Your task to perform on an android device: Open internet settings Image 0: 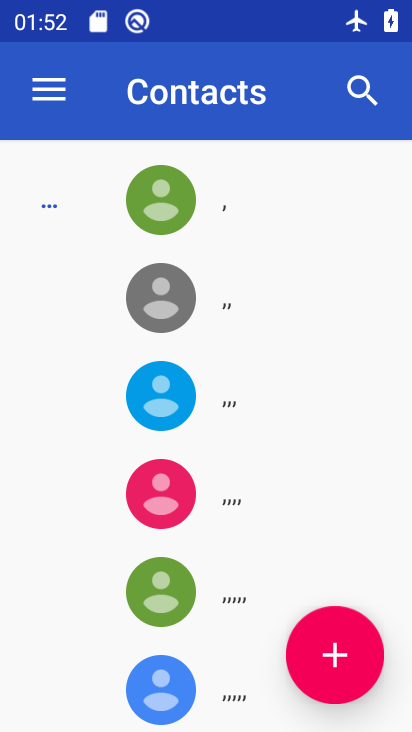
Step 0: press home button
Your task to perform on an android device: Open internet settings Image 1: 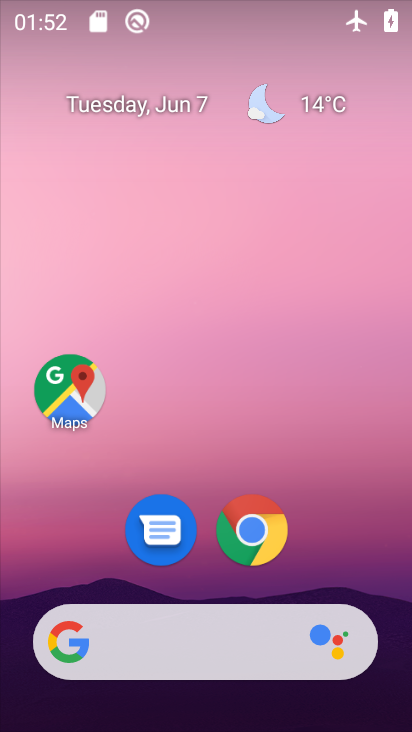
Step 1: drag from (337, 563) to (374, 167)
Your task to perform on an android device: Open internet settings Image 2: 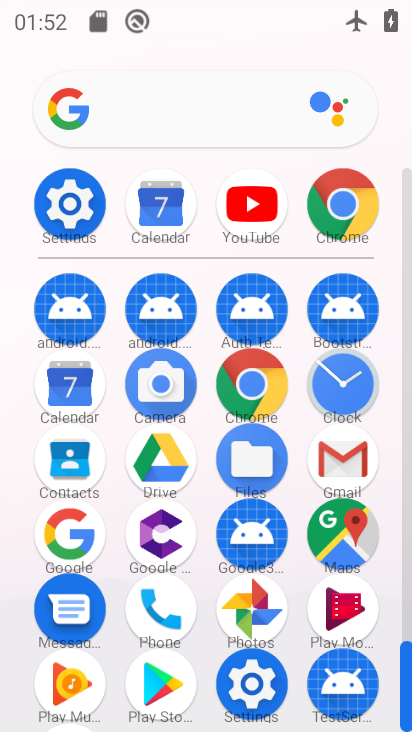
Step 2: click (76, 210)
Your task to perform on an android device: Open internet settings Image 3: 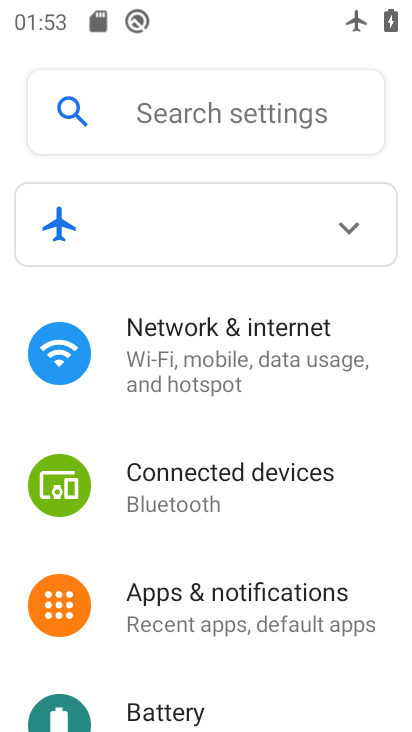
Step 3: click (205, 370)
Your task to perform on an android device: Open internet settings Image 4: 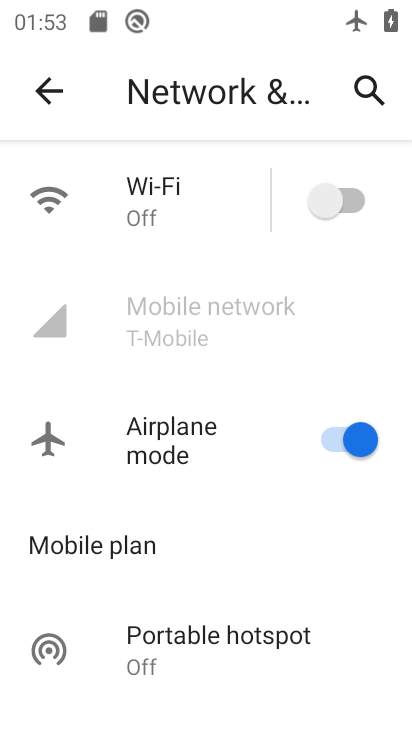
Step 4: task complete